Your task to perform on an android device: open app "Firefox Browser" (install if not already installed) Image 0: 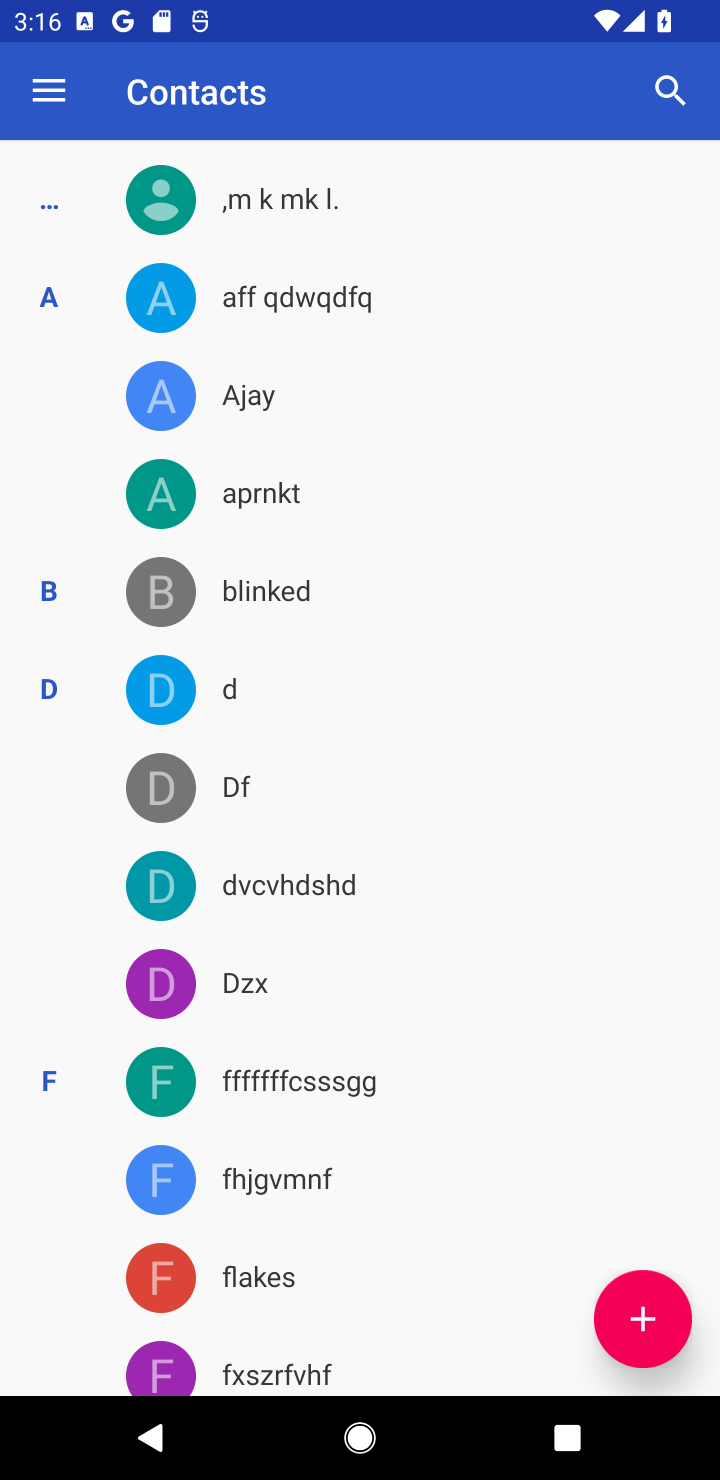
Step 0: press home button
Your task to perform on an android device: open app "Firefox Browser" (install if not already installed) Image 1: 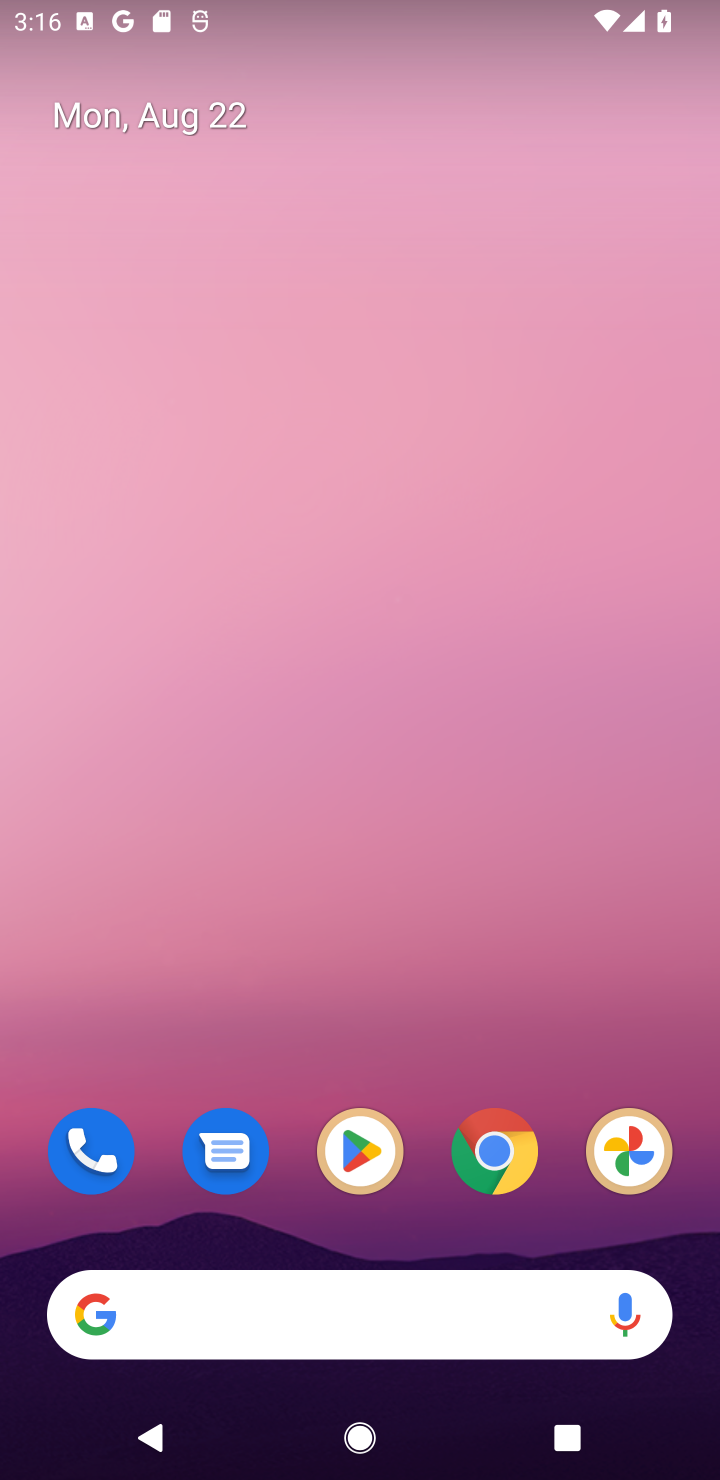
Step 1: click (361, 1136)
Your task to perform on an android device: open app "Firefox Browser" (install if not already installed) Image 2: 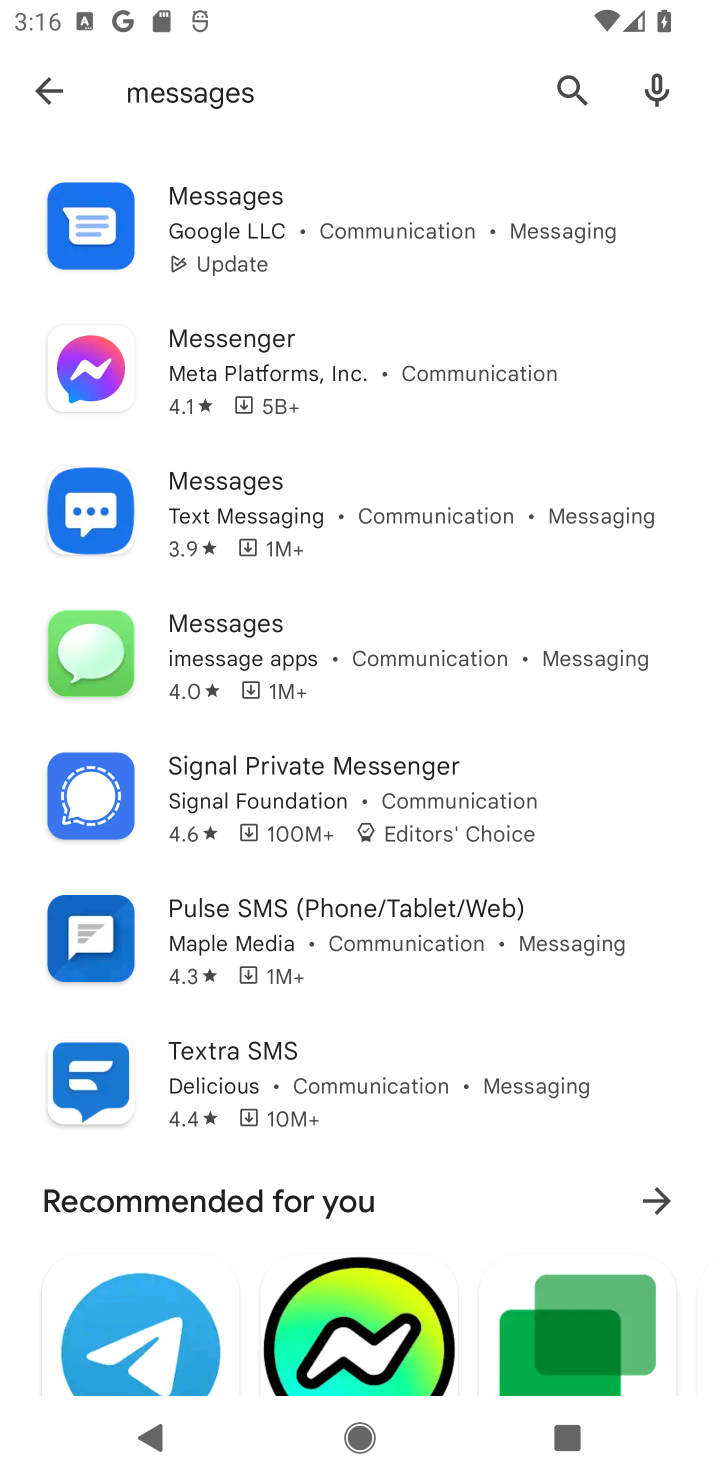
Step 2: click (568, 83)
Your task to perform on an android device: open app "Firefox Browser" (install if not already installed) Image 3: 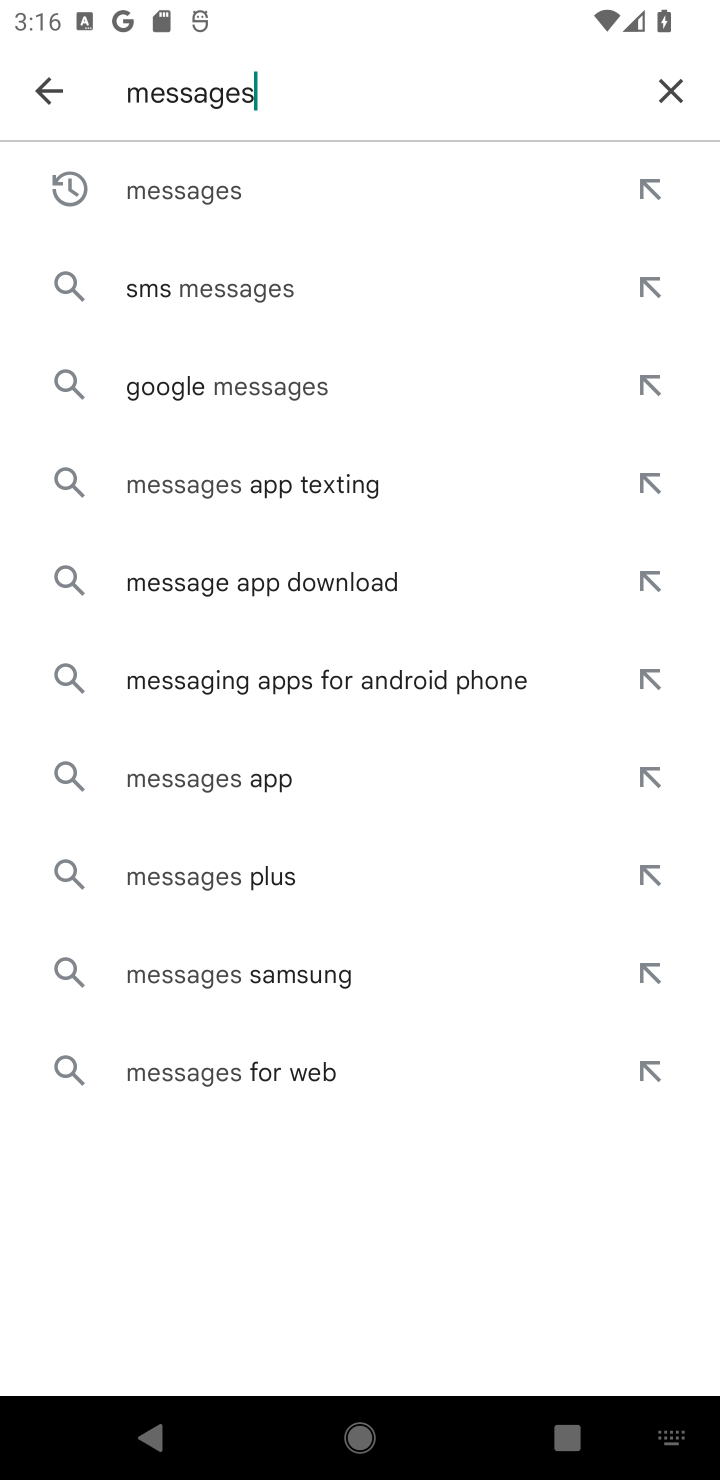
Step 3: click (669, 86)
Your task to perform on an android device: open app "Firefox Browser" (install if not already installed) Image 4: 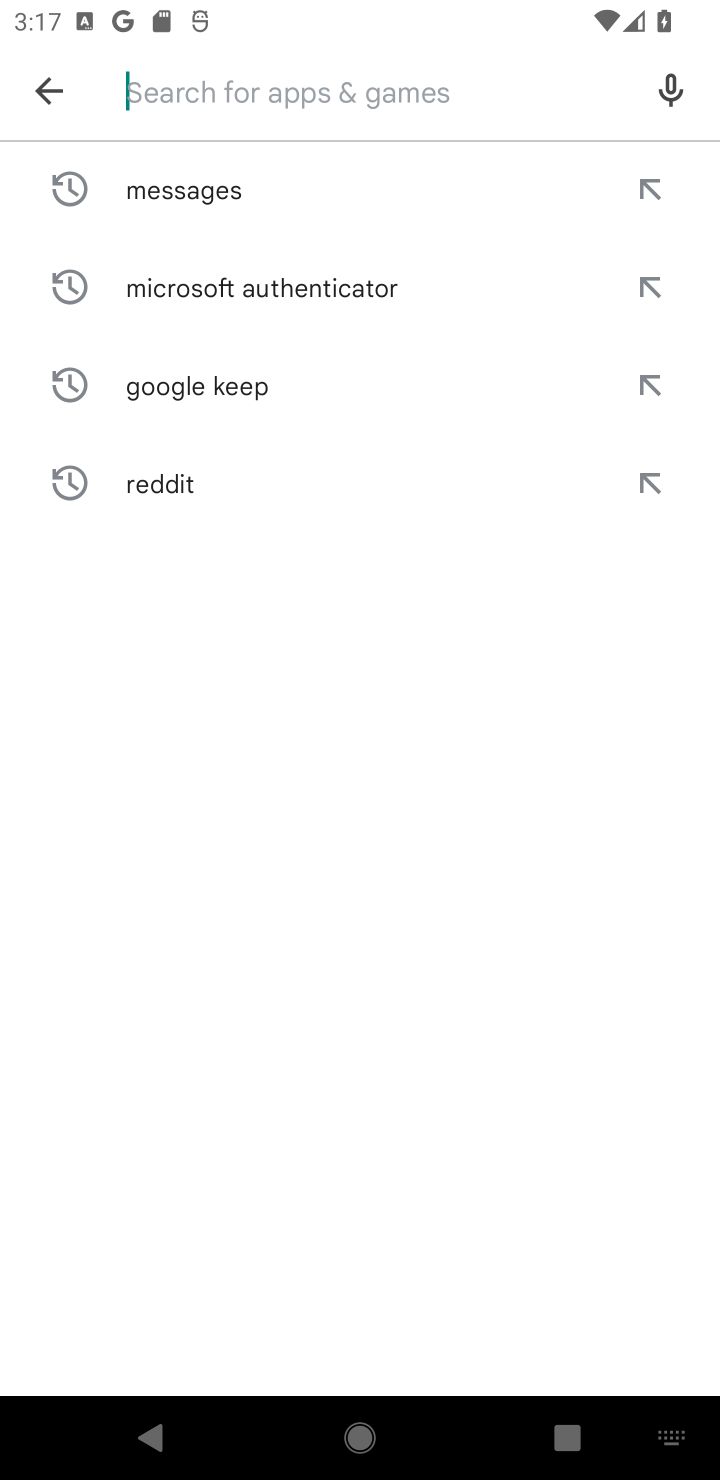
Step 4: type "Firefox Browser"
Your task to perform on an android device: open app "Firefox Browser" (install if not already installed) Image 5: 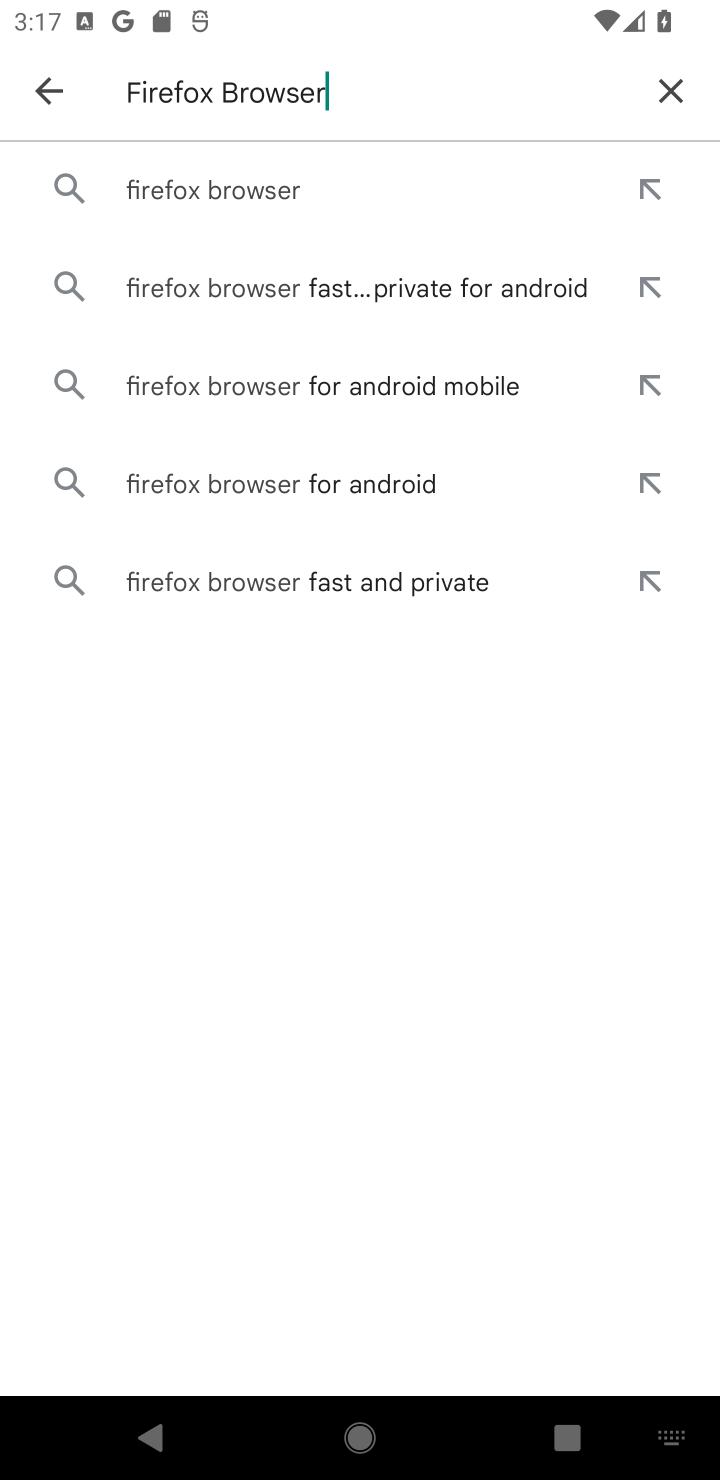
Step 5: click (271, 193)
Your task to perform on an android device: open app "Firefox Browser" (install if not already installed) Image 6: 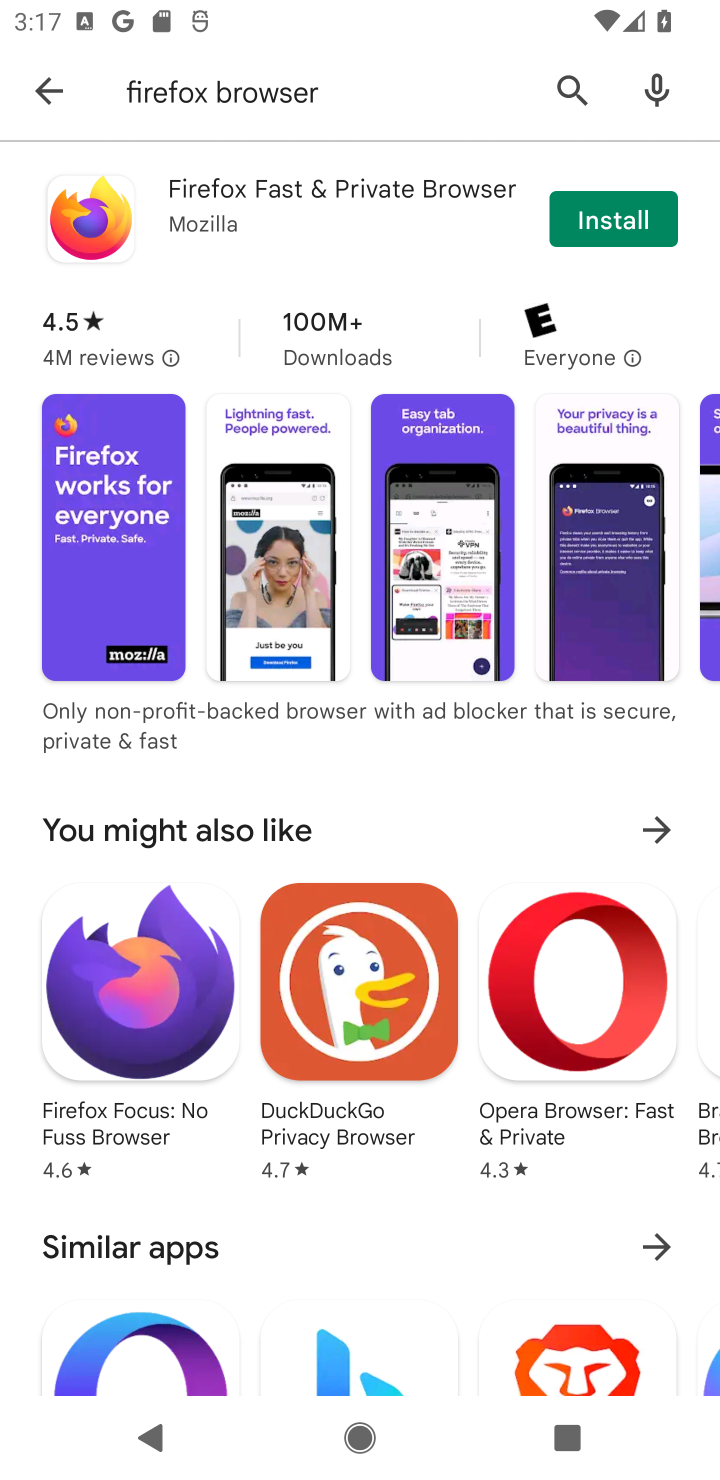
Step 6: click (611, 222)
Your task to perform on an android device: open app "Firefox Browser" (install if not already installed) Image 7: 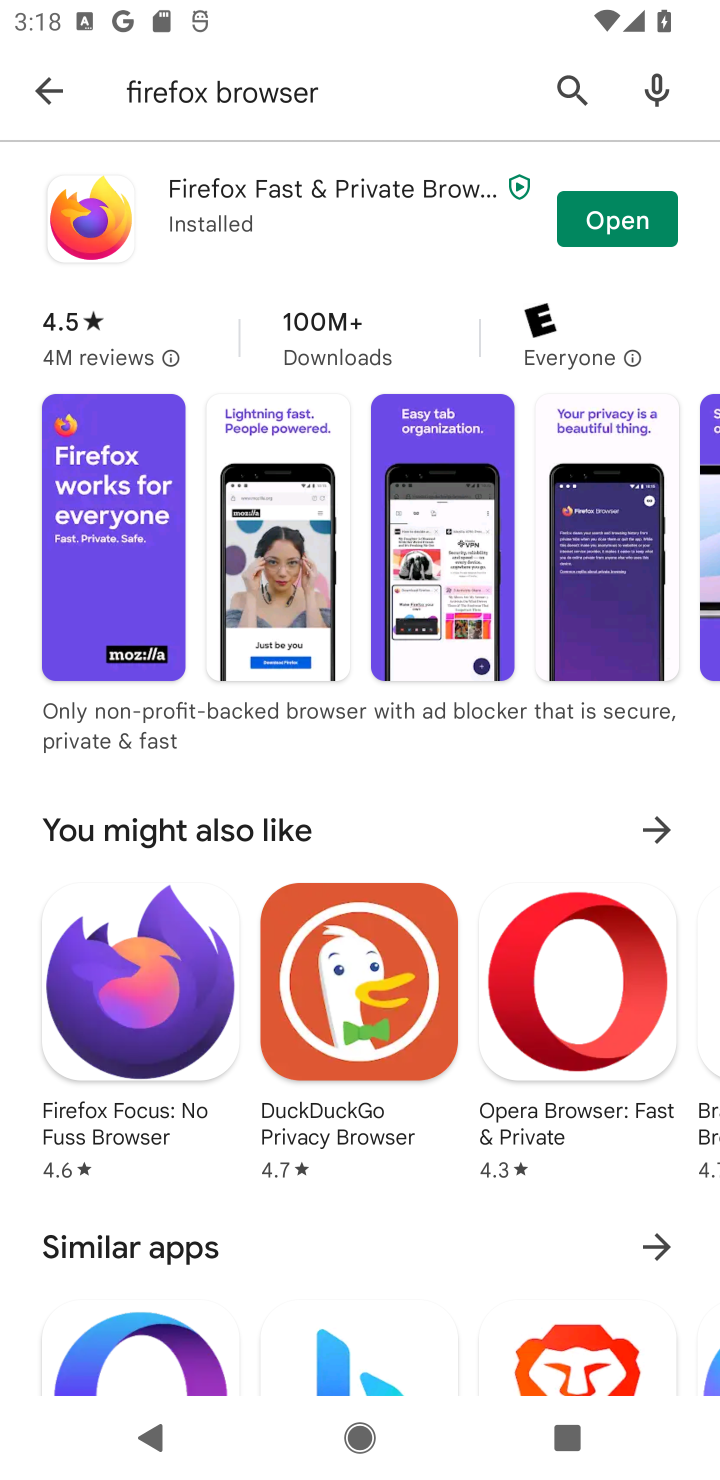
Step 7: click (618, 220)
Your task to perform on an android device: open app "Firefox Browser" (install if not already installed) Image 8: 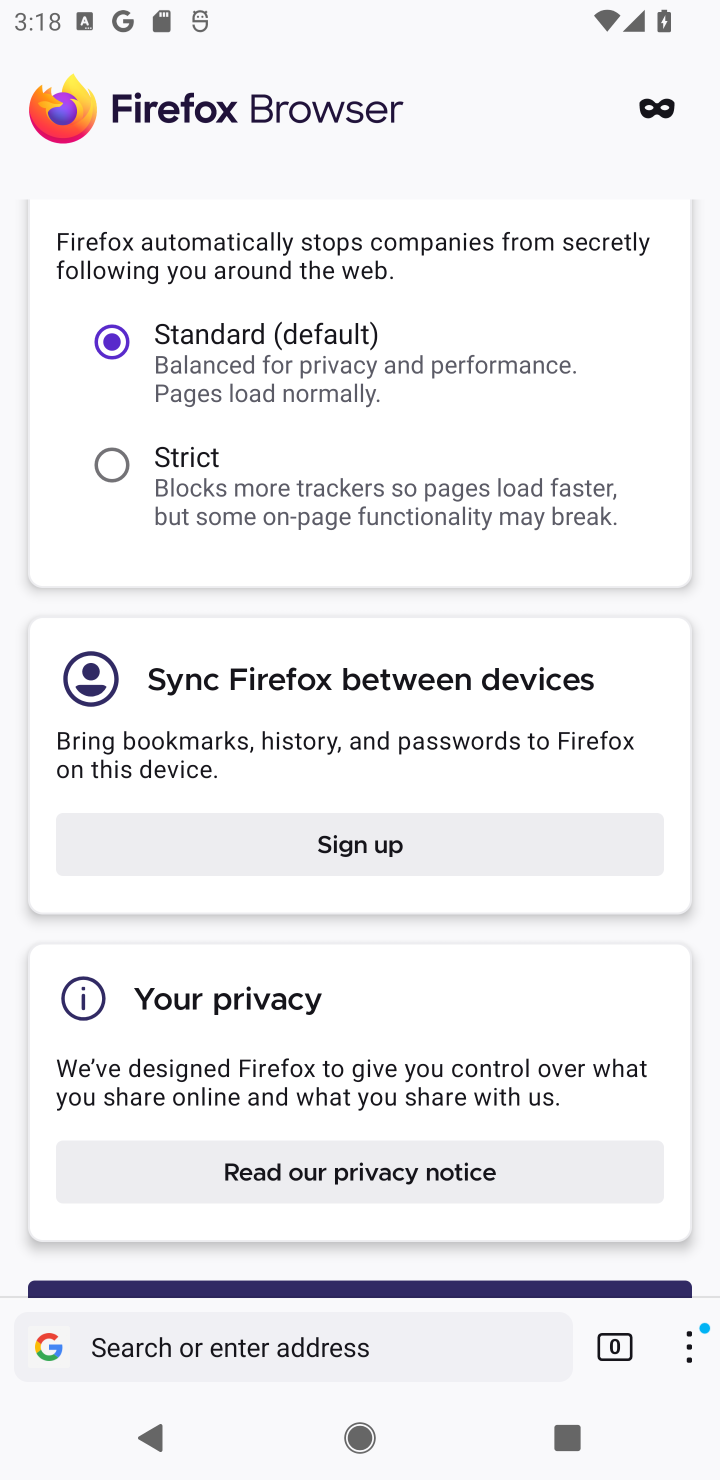
Step 8: task complete